Your task to perform on an android device: turn off javascript in the chrome app Image 0: 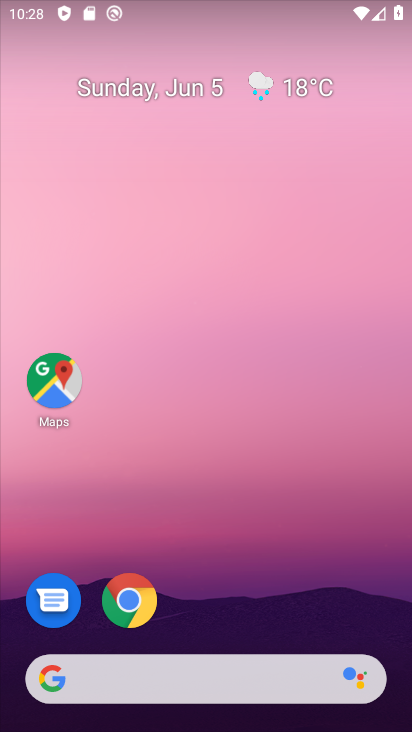
Step 0: click (157, 609)
Your task to perform on an android device: turn off javascript in the chrome app Image 1: 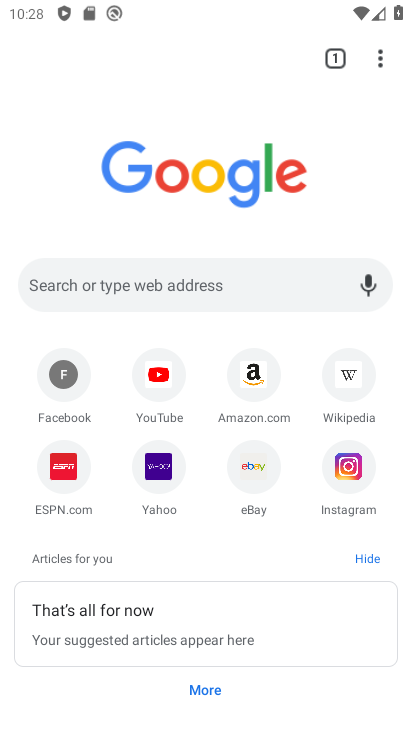
Step 1: drag from (379, 70) to (175, 489)
Your task to perform on an android device: turn off javascript in the chrome app Image 2: 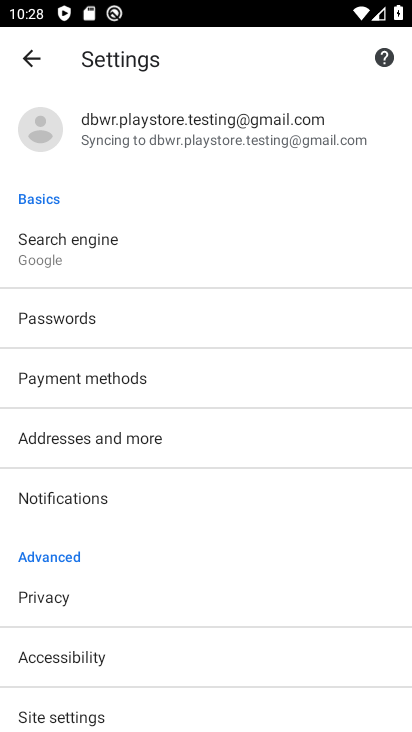
Step 2: drag from (179, 520) to (187, 420)
Your task to perform on an android device: turn off javascript in the chrome app Image 3: 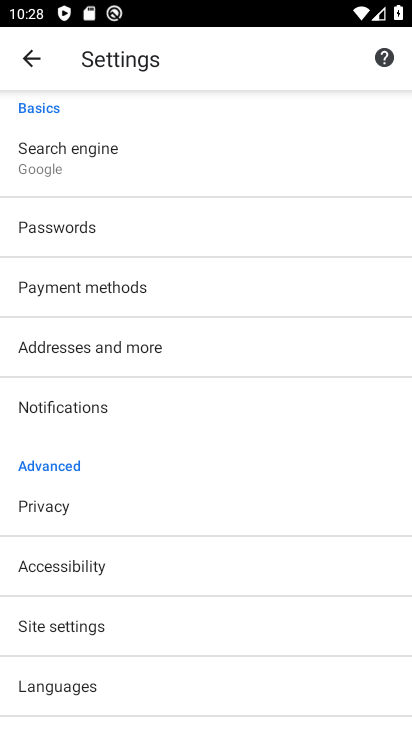
Step 3: drag from (153, 540) to (160, 435)
Your task to perform on an android device: turn off javascript in the chrome app Image 4: 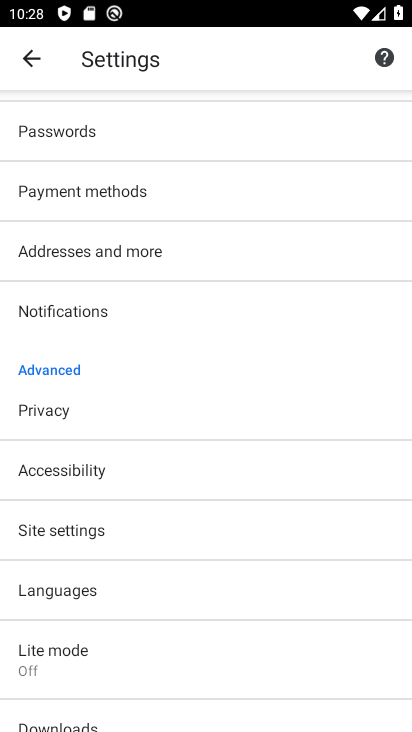
Step 4: drag from (124, 632) to (125, 506)
Your task to perform on an android device: turn off javascript in the chrome app Image 5: 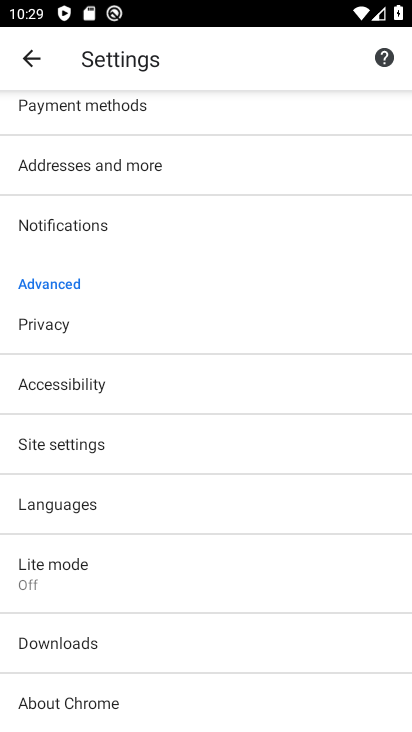
Step 5: click (97, 460)
Your task to perform on an android device: turn off javascript in the chrome app Image 6: 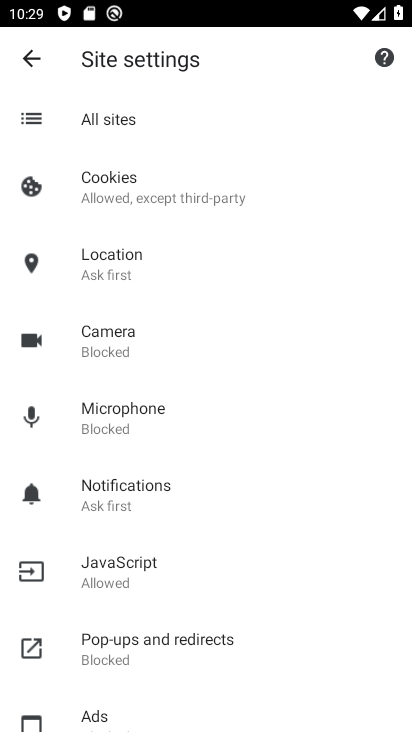
Step 6: click (145, 567)
Your task to perform on an android device: turn off javascript in the chrome app Image 7: 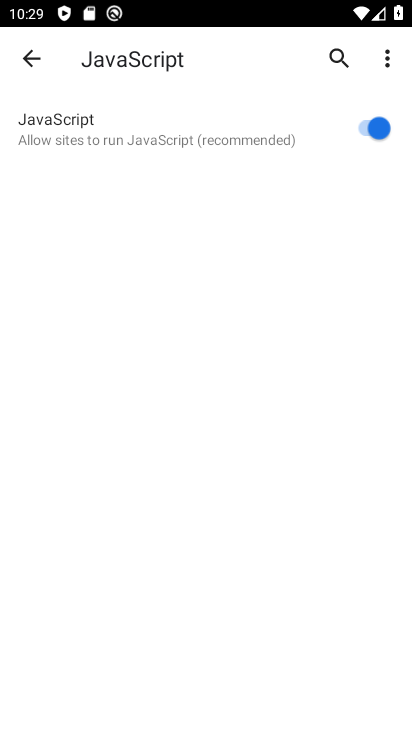
Step 7: click (361, 123)
Your task to perform on an android device: turn off javascript in the chrome app Image 8: 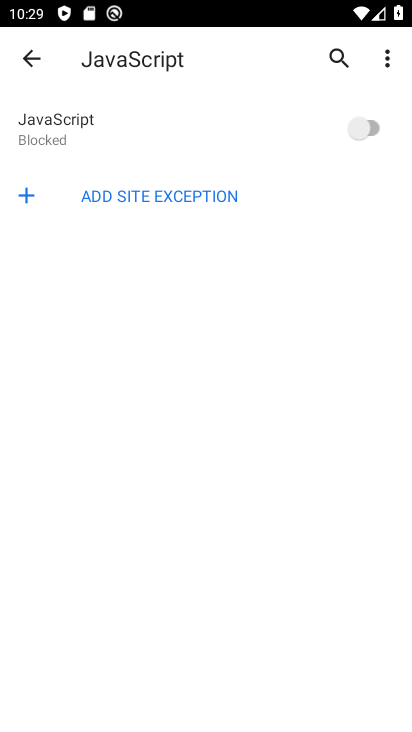
Step 8: task complete